Your task to perform on an android device: turn off wifi Image 0: 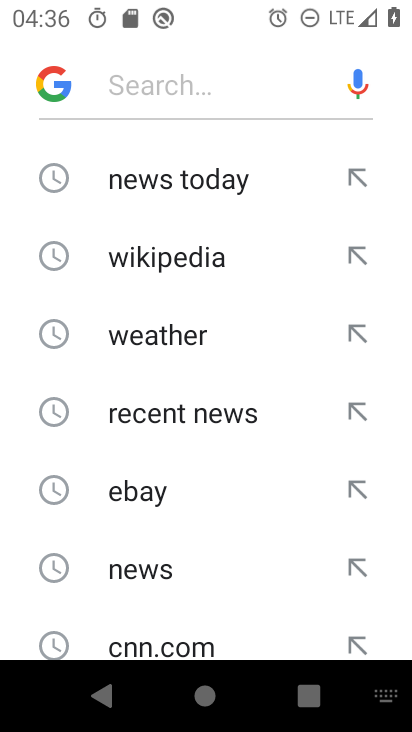
Step 0: press back button
Your task to perform on an android device: turn off wifi Image 1: 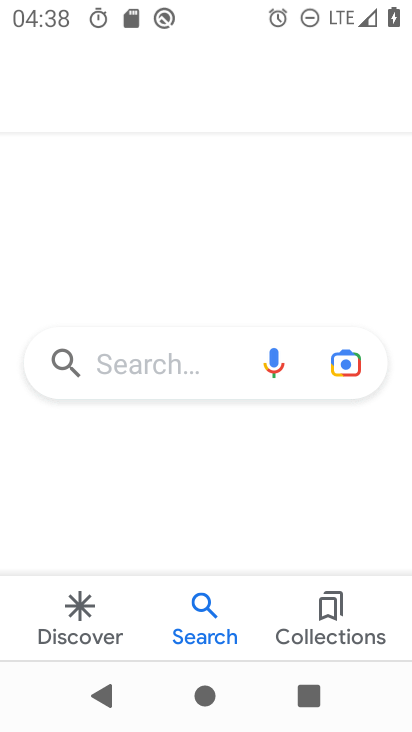
Step 1: task complete